Your task to perform on an android device: delete browsing data in the chrome app Image 0: 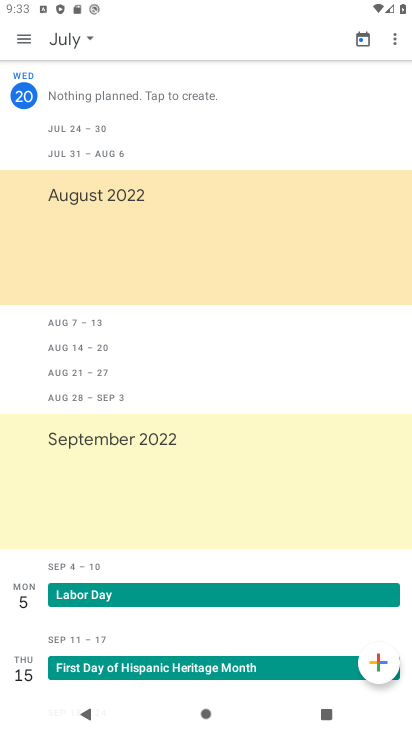
Step 0: press home button
Your task to perform on an android device: delete browsing data in the chrome app Image 1: 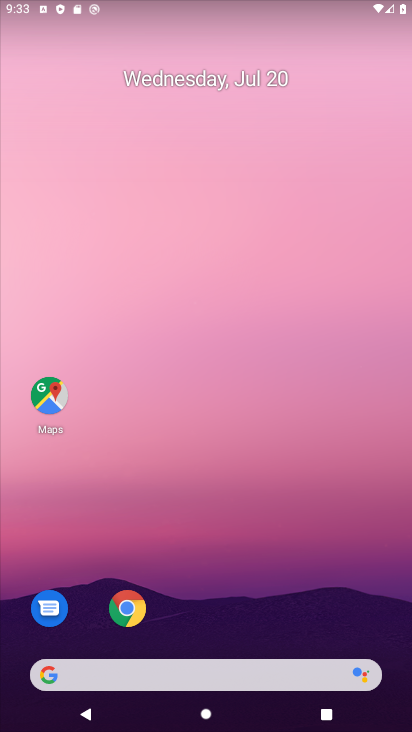
Step 1: drag from (280, 604) to (228, 101)
Your task to perform on an android device: delete browsing data in the chrome app Image 2: 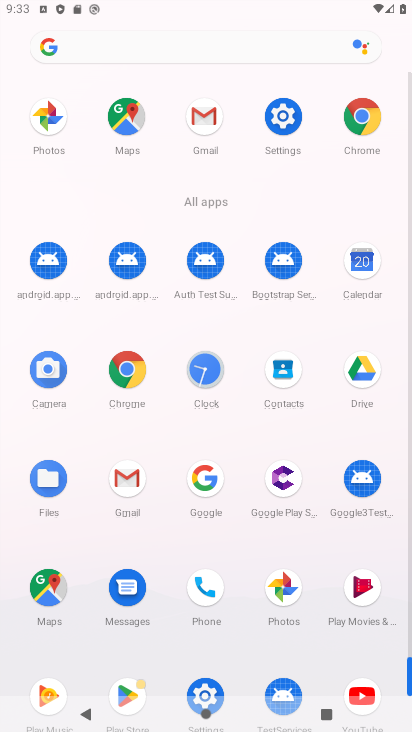
Step 2: click (135, 375)
Your task to perform on an android device: delete browsing data in the chrome app Image 3: 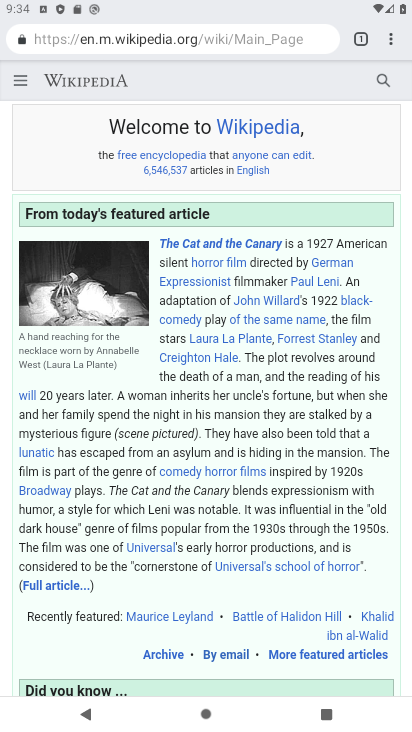
Step 3: click (390, 41)
Your task to perform on an android device: delete browsing data in the chrome app Image 4: 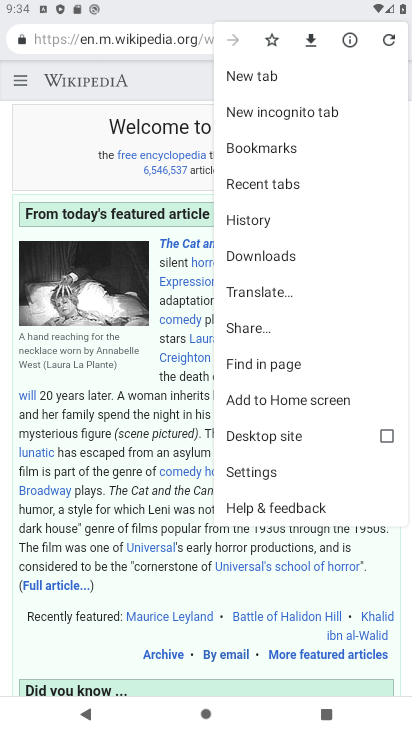
Step 4: click (294, 467)
Your task to perform on an android device: delete browsing data in the chrome app Image 5: 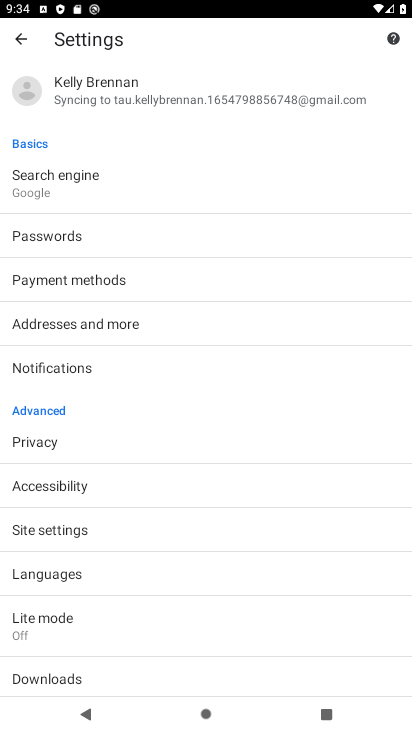
Step 5: press back button
Your task to perform on an android device: delete browsing data in the chrome app Image 6: 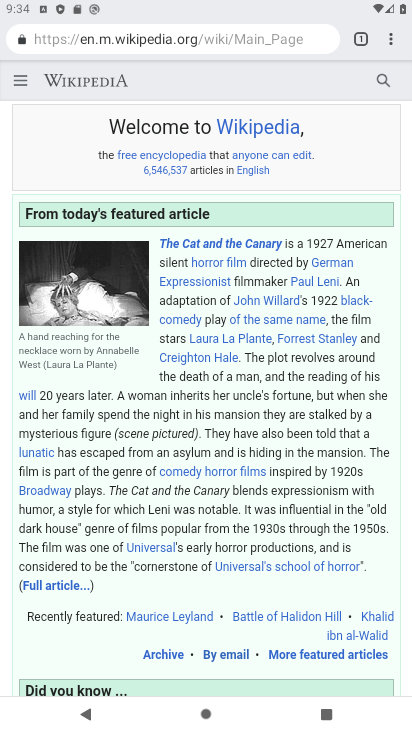
Step 6: click (395, 44)
Your task to perform on an android device: delete browsing data in the chrome app Image 7: 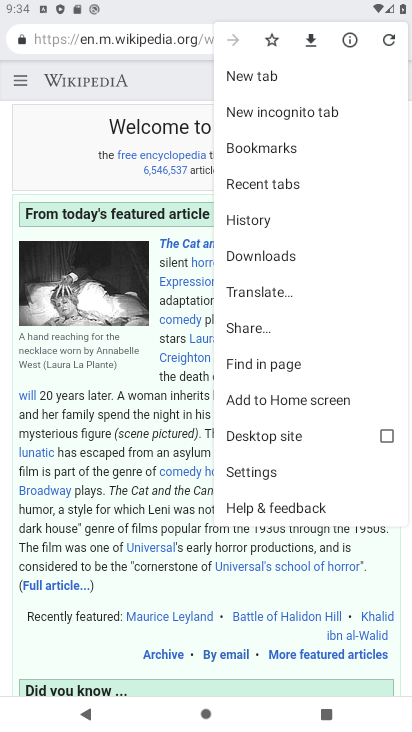
Step 7: click (274, 223)
Your task to perform on an android device: delete browsing data in the chrome app Image 8: 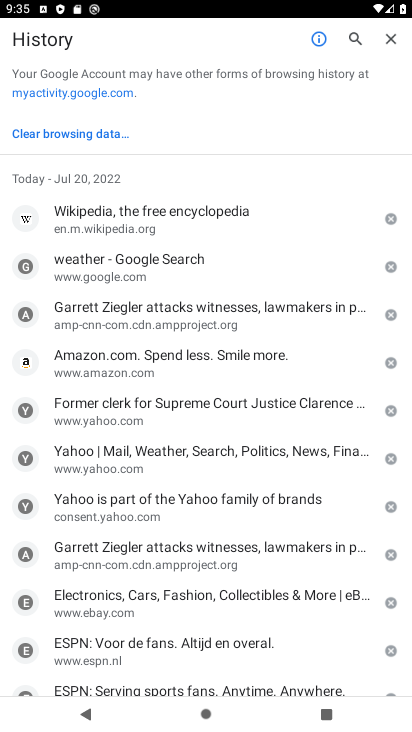
Step 8: click (82, 137)
Your task to perform on an android device: delete browsing data in the chrome app Image 9: 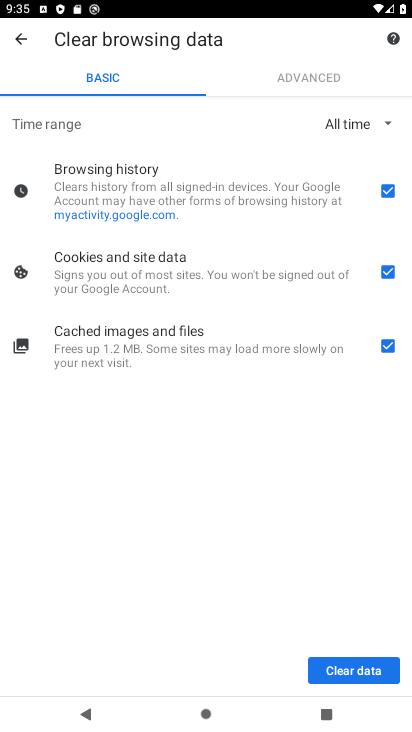
Step 9: click (378, 673)
Your task to perform on an android device: delete browsing data in the chrome app Image 10: 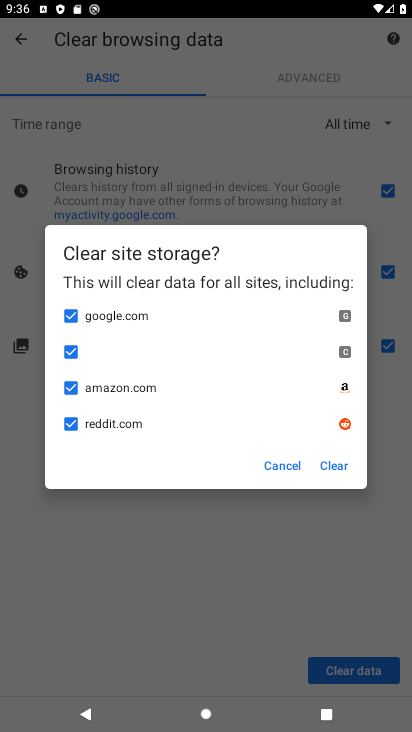
Step 10: click (336, 468)
Your task to perform on an android device: delete browsing data in the chrome app Image 11: 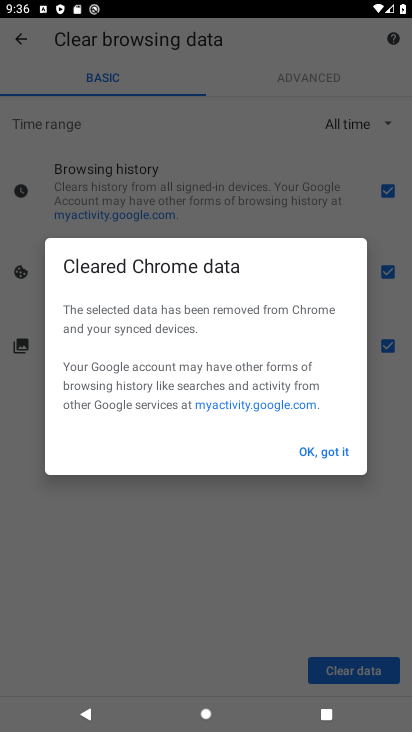
Step 11: click (336, 462)
Your task to perform on an android device: delete browsing data in the chrome app Image 12: 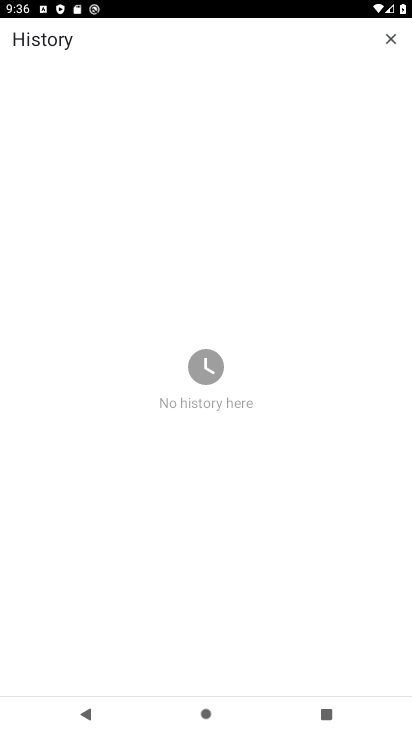
Step 12: task complete